Your task to perform on an android device: turn off priority inbox in the gmail app Image 0: 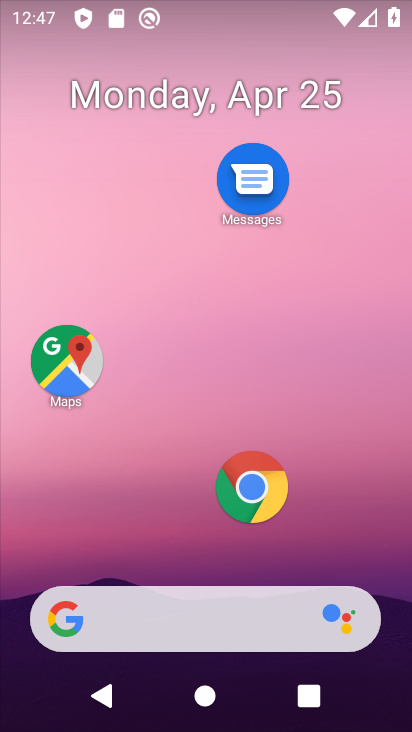
Step 0: drag from (288, 640) to (292, 9)
Your task to perform on an android device: turn off priority inbox in the gmail app Image 1: 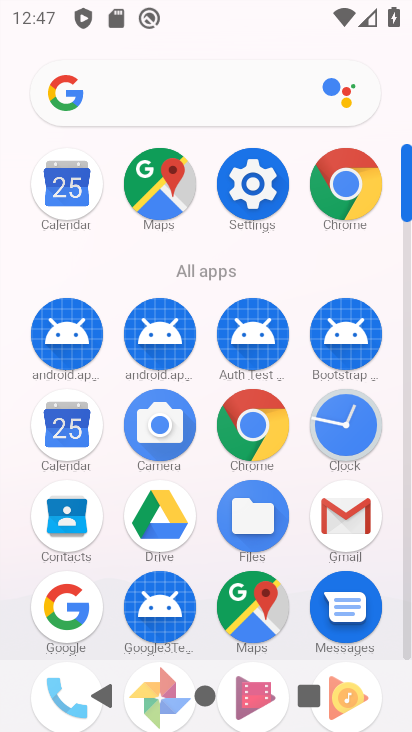
Step 1: click (335, 523)
Your task to perform on an android device: turn off priority inbox in the gmail app Image 2: 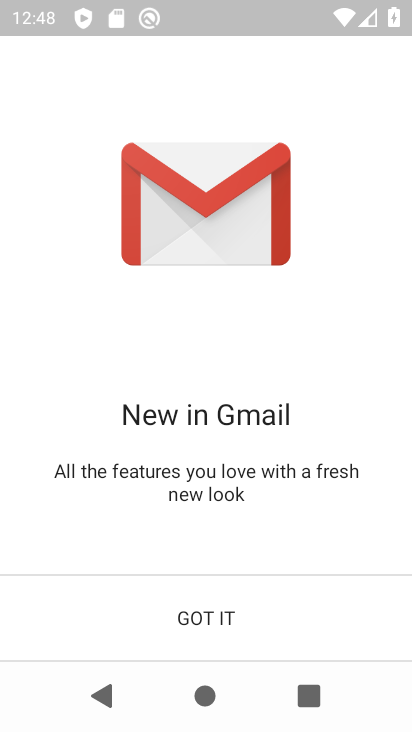
Step 2: click (249, 616)
Your task to perform on an android device: turn off priority inbox in the gmail app Image 3: 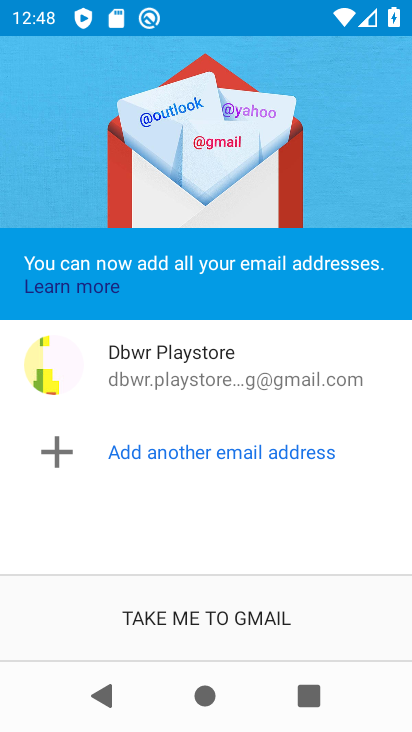
Step 3: click (240, 630)
Your task to perform on an android device: turn off priority inbox in the gmail app Image 4: 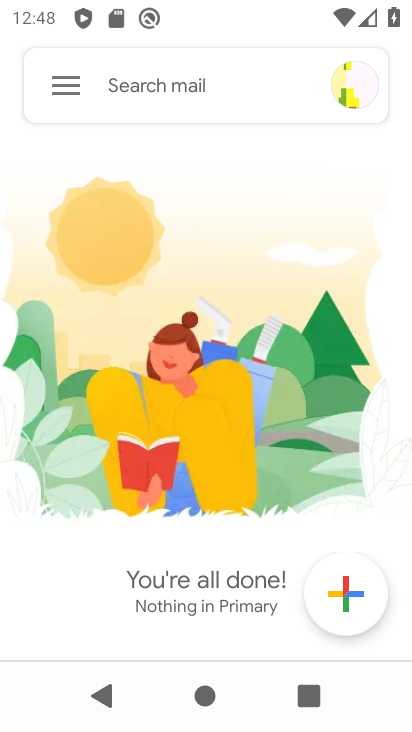
Step 4: click (60, 85)
Your task to perform on an android device: turn off priority inbox in the gmail app Image 5: 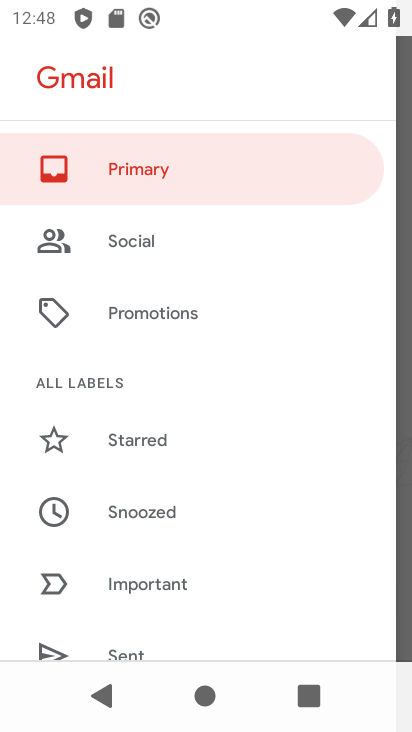
Step 5: drag from (135, 546) to (208, 135)
Your task to perform on an android device: turn off priority inbox in the gmail app Image 6: 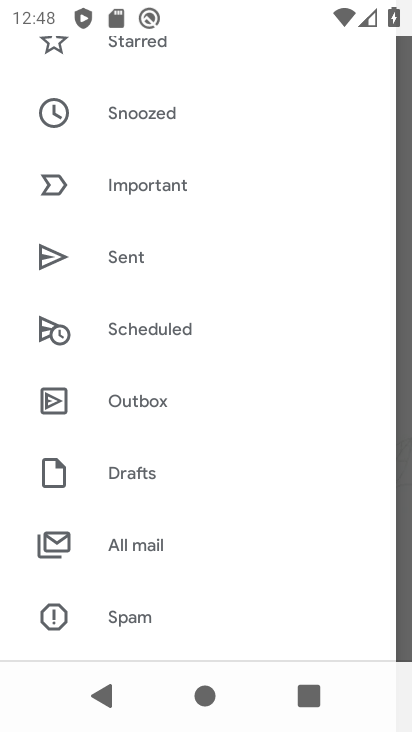
Step 6: drag from (279, 634) to (311, 174)
Your task to perform on an android device: turn off priority inbox in the gmail app Image 7: 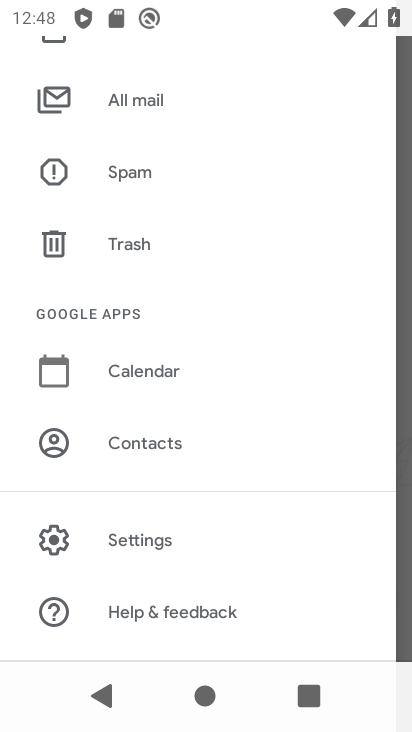
Step 7: click (170, 545)
Your task to perform on an android device: turn off priority inbox in the gmail app Image 8: 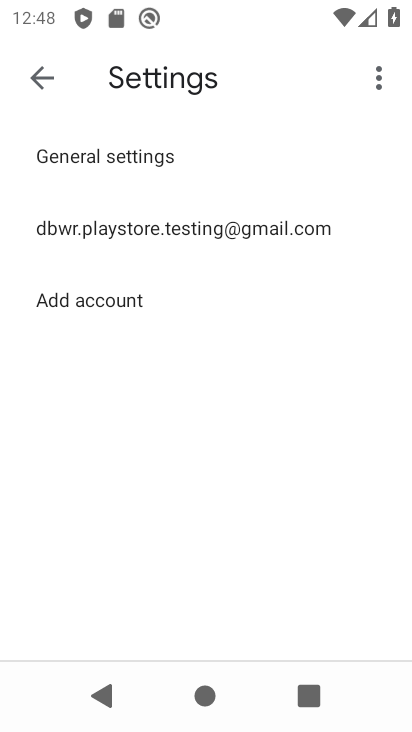
Step 8: click (148, 219)
Your task to perform on an android device: turn off priority inbox in the gmail app Image 9: 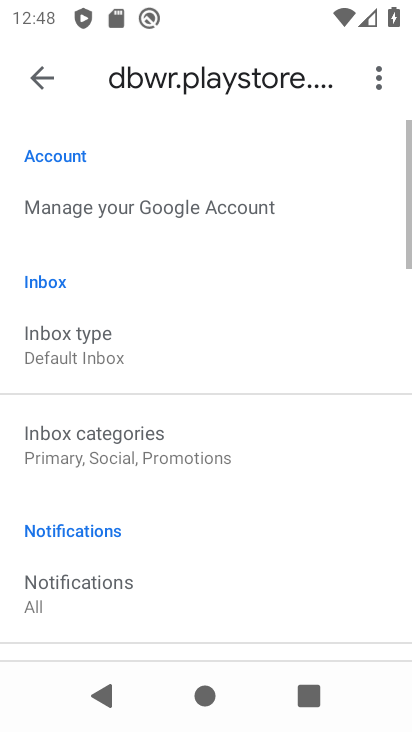
Step 9: drag from (158, 582) to (206, 154)
Your task to perform on an android device: turn off priority inbox in the gmail app Image 10: 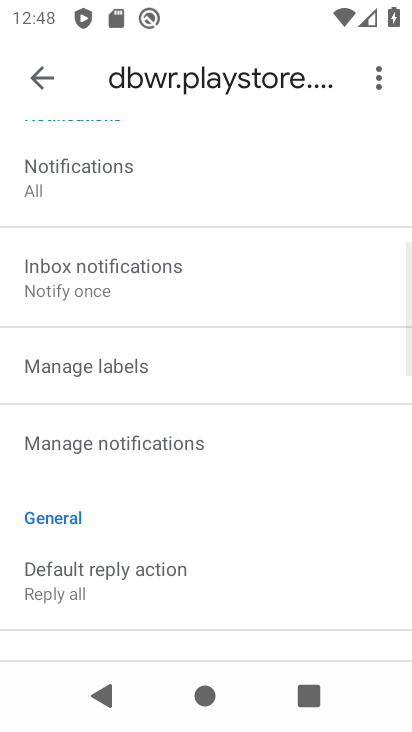
Step 10: drag from (217, 213) to (281, 625)
Your task to perform on an android device: turn off priority inbox in the gmail app Image 11: 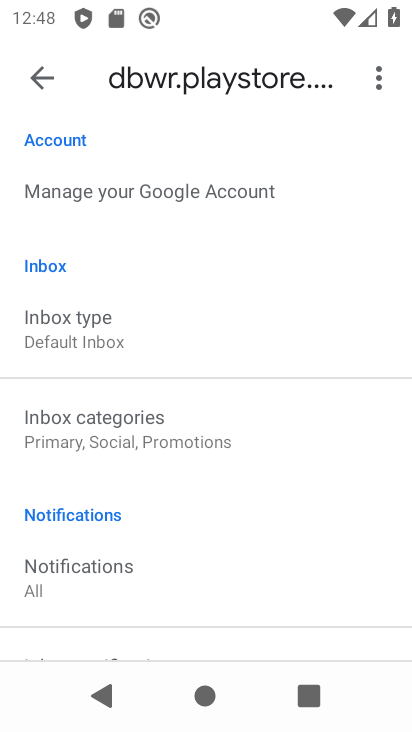
Step 11: click (161, 327)
Your task to perform on an android device: turn off priority inbox in the gmail app Image 12: 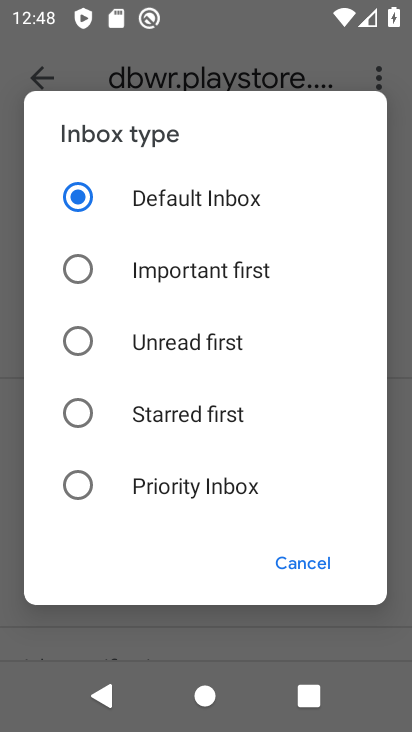
Step 12: click (148, 477)
Your task to perform on an android device: turn off priority inbox in the gmail app Image 13: 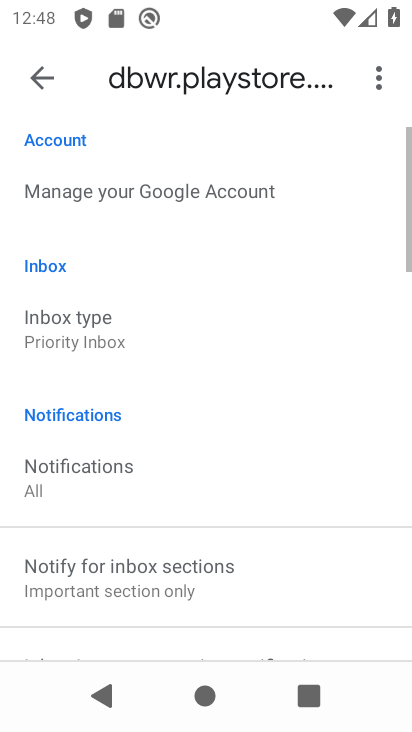
Step 13: click (113, 332)
Your task to perform on an android device: turn off priority inbox in the gmail app Image 14: 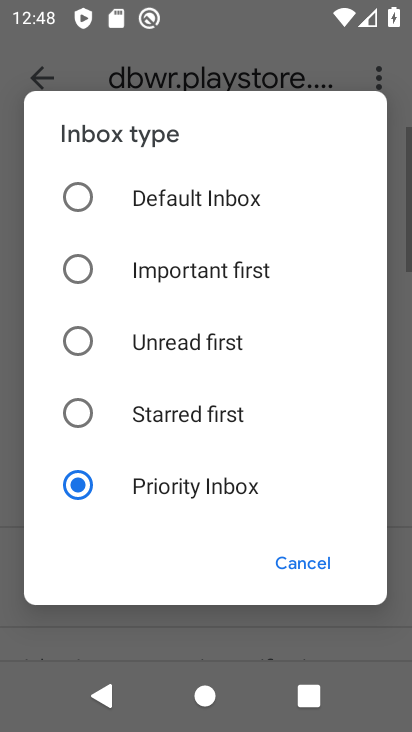
Step 14: click (129, 271)
Your task to perform on an android device: turn off priority inbox in the gmail app Image 15: 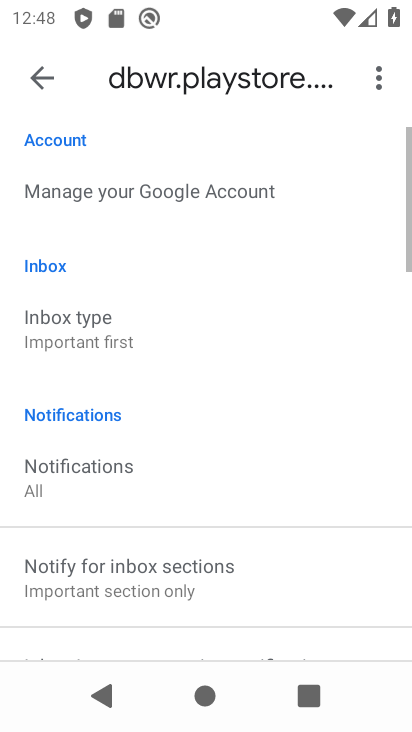
Step 15: task complete